Your task to perform on an android device: Play the last video I watched on Youtube Image 0: 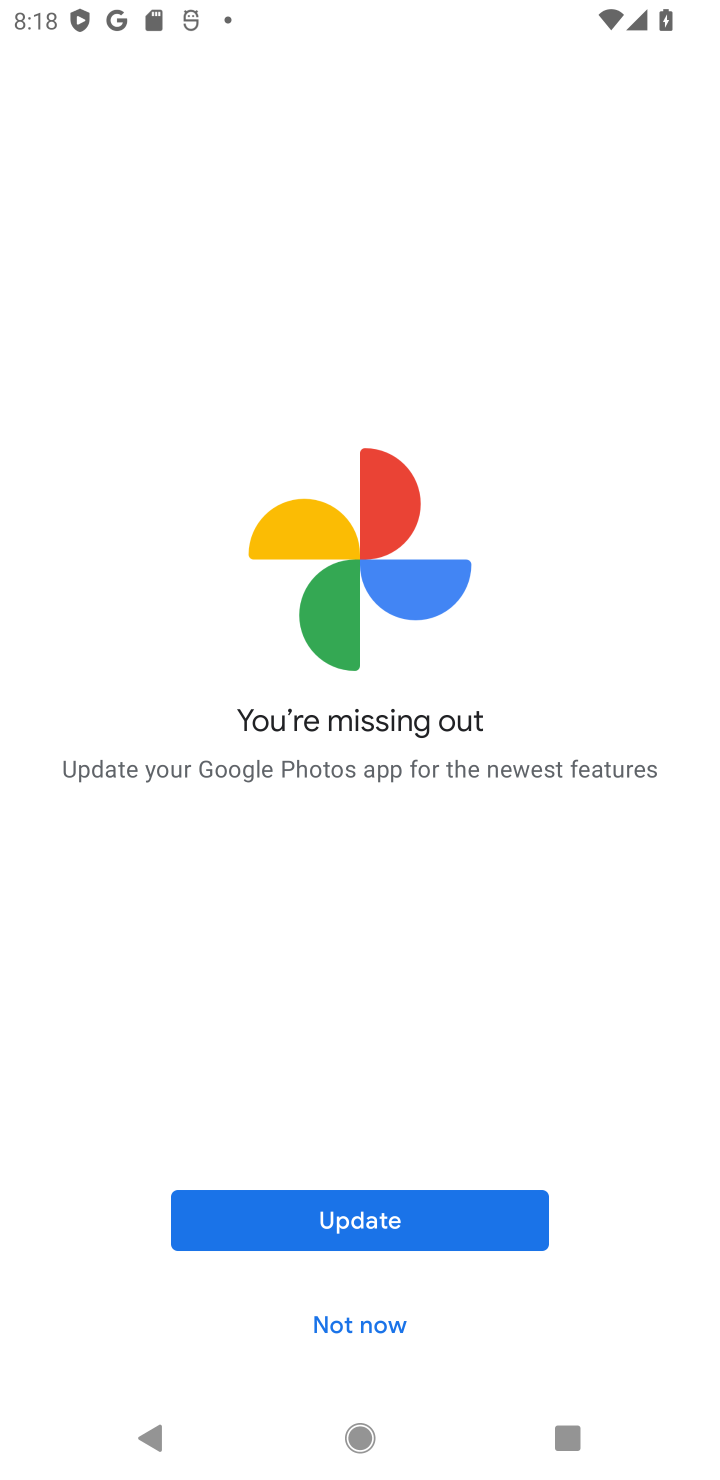
Step 0: press home button
Your task to perform on an android device: Play the last video I watched on Youtube Image 1: 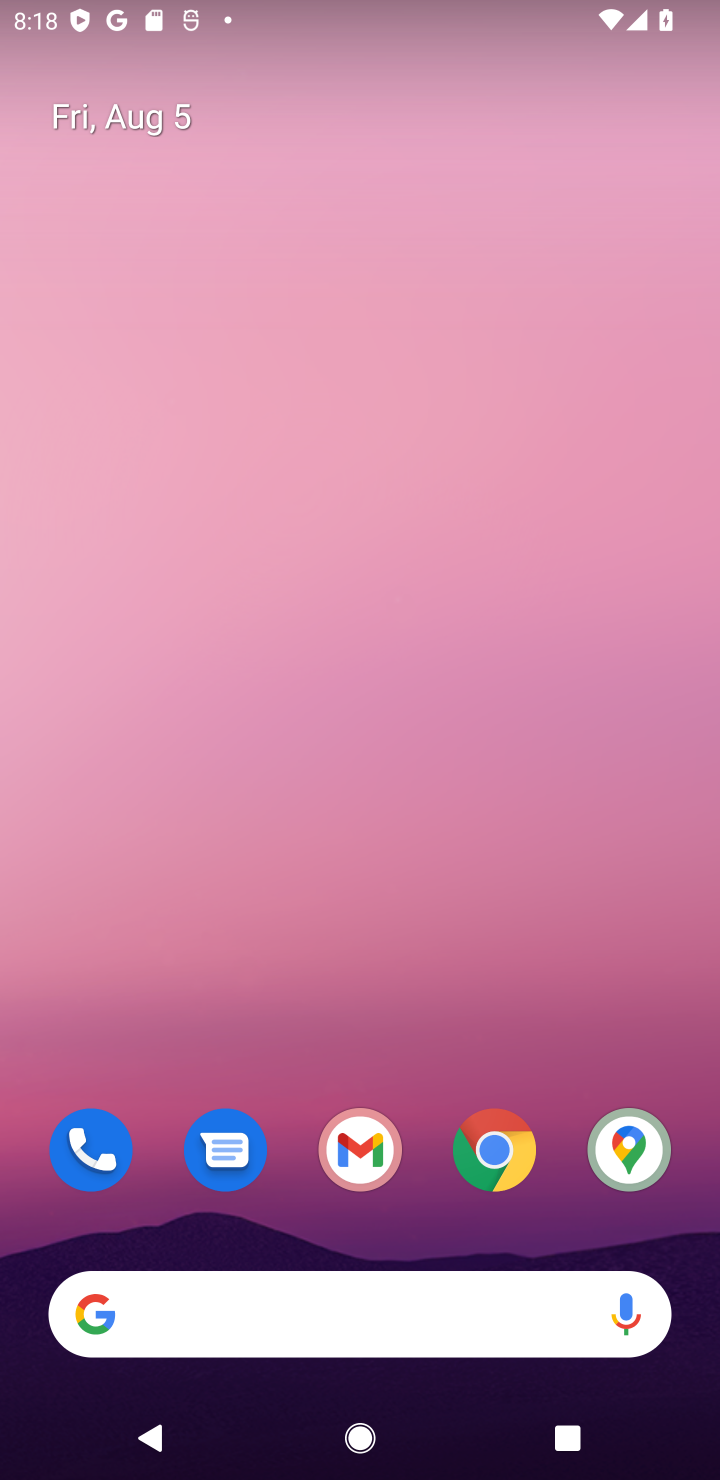
Step 1: drag from (422, 1063) to (462, 452)
Your task to perform on an android device: Play the last video I watched on Youtube Image 2: 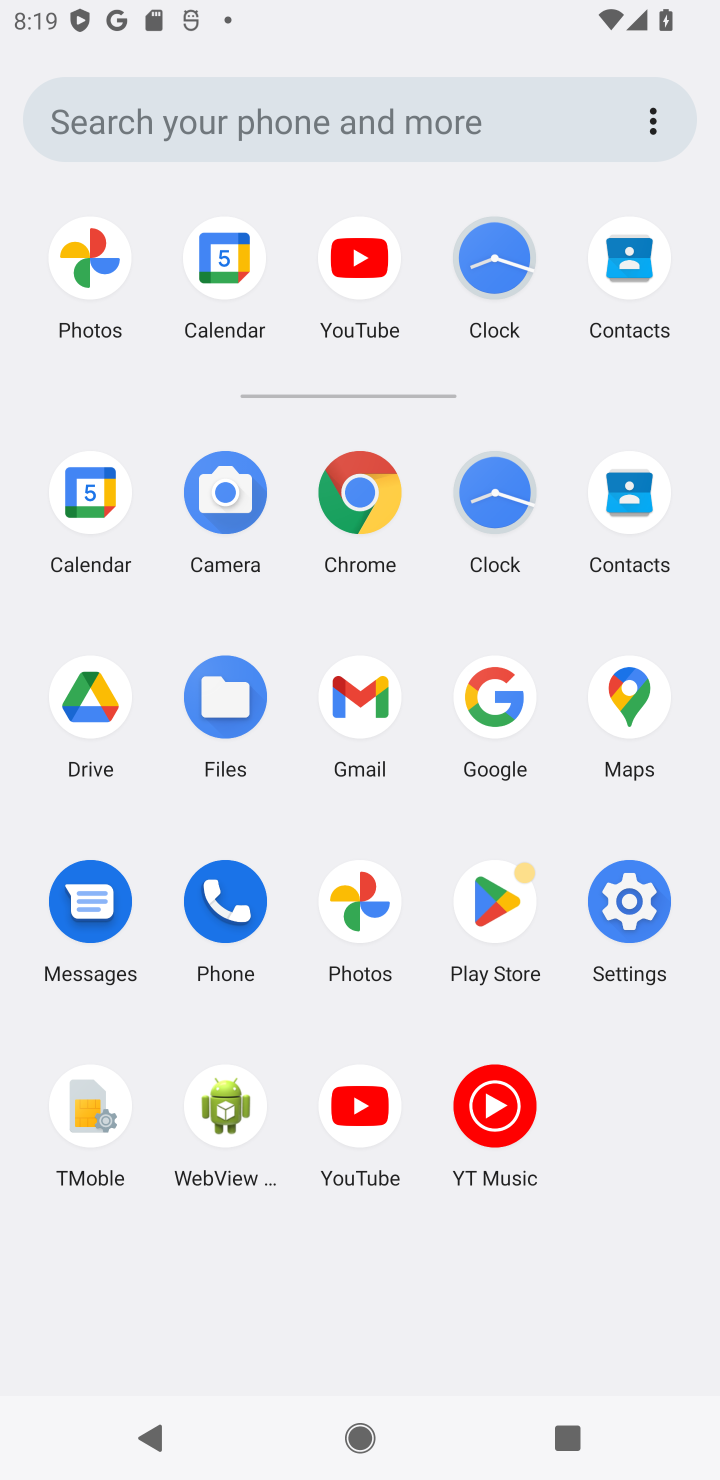
Step 2: click (364, 1115)
Your task to perform on an android device: Play the last video I watched on Youtube Image 3: 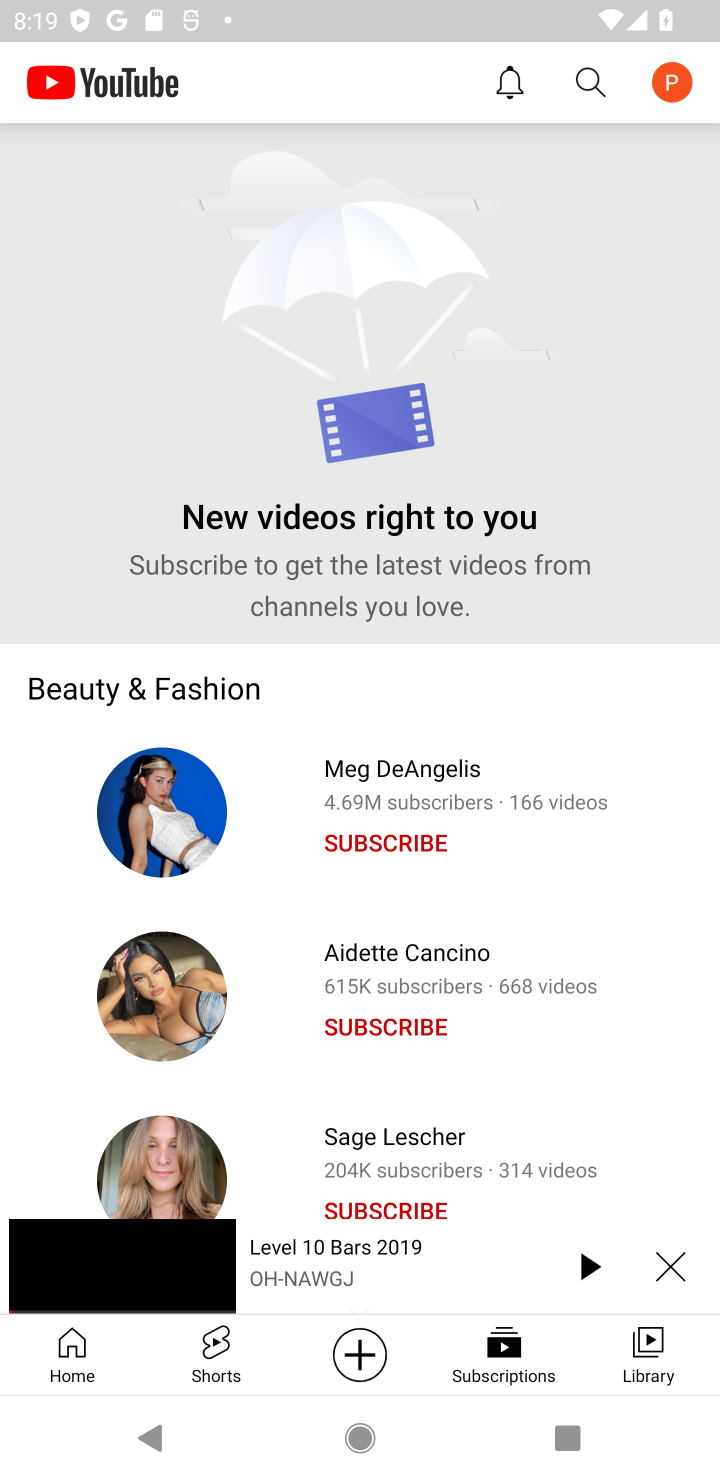
Step 3: click (156, 1254)
Your task to perform on an android device: Play the last video I watched on Youtube Image 4: 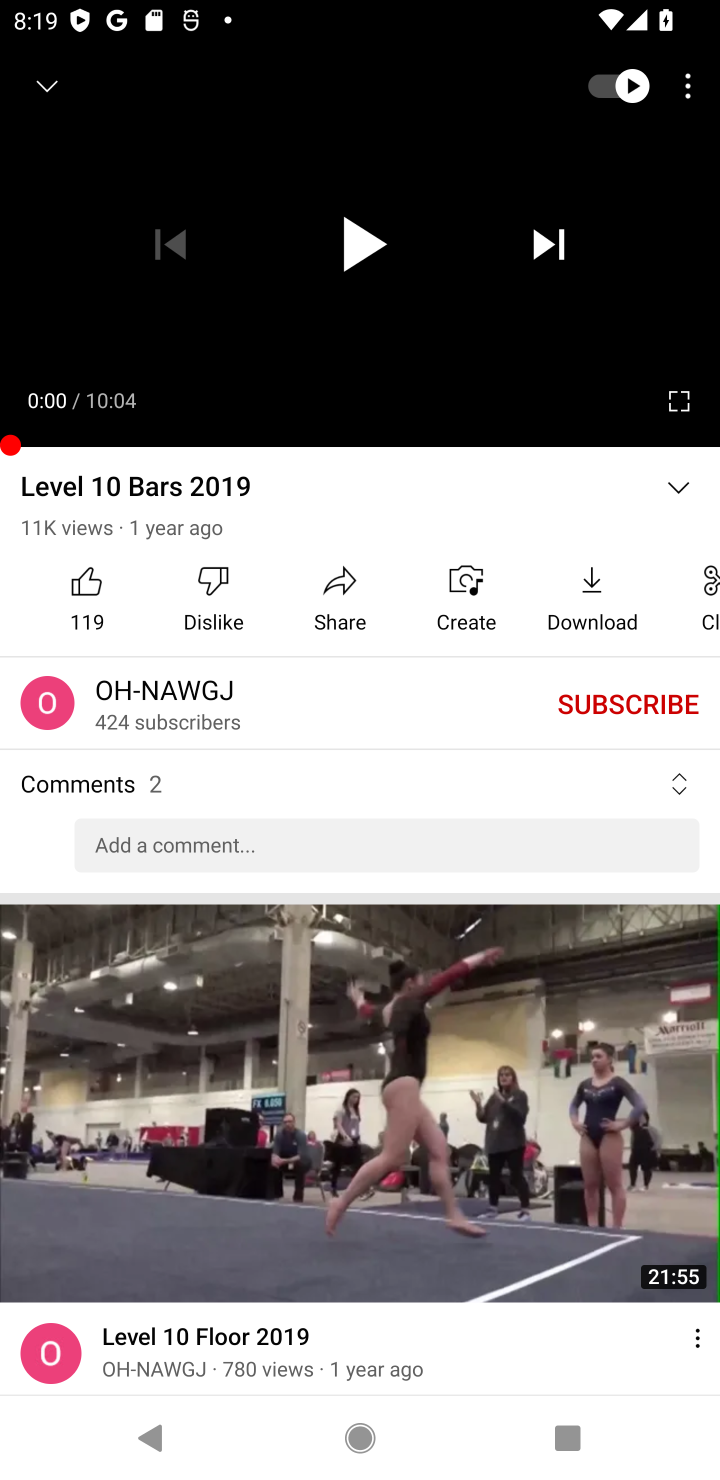
Step 4: click (366, 241)
Your task to perform on an android device: Play the last video I watched on Youtube Image 5: 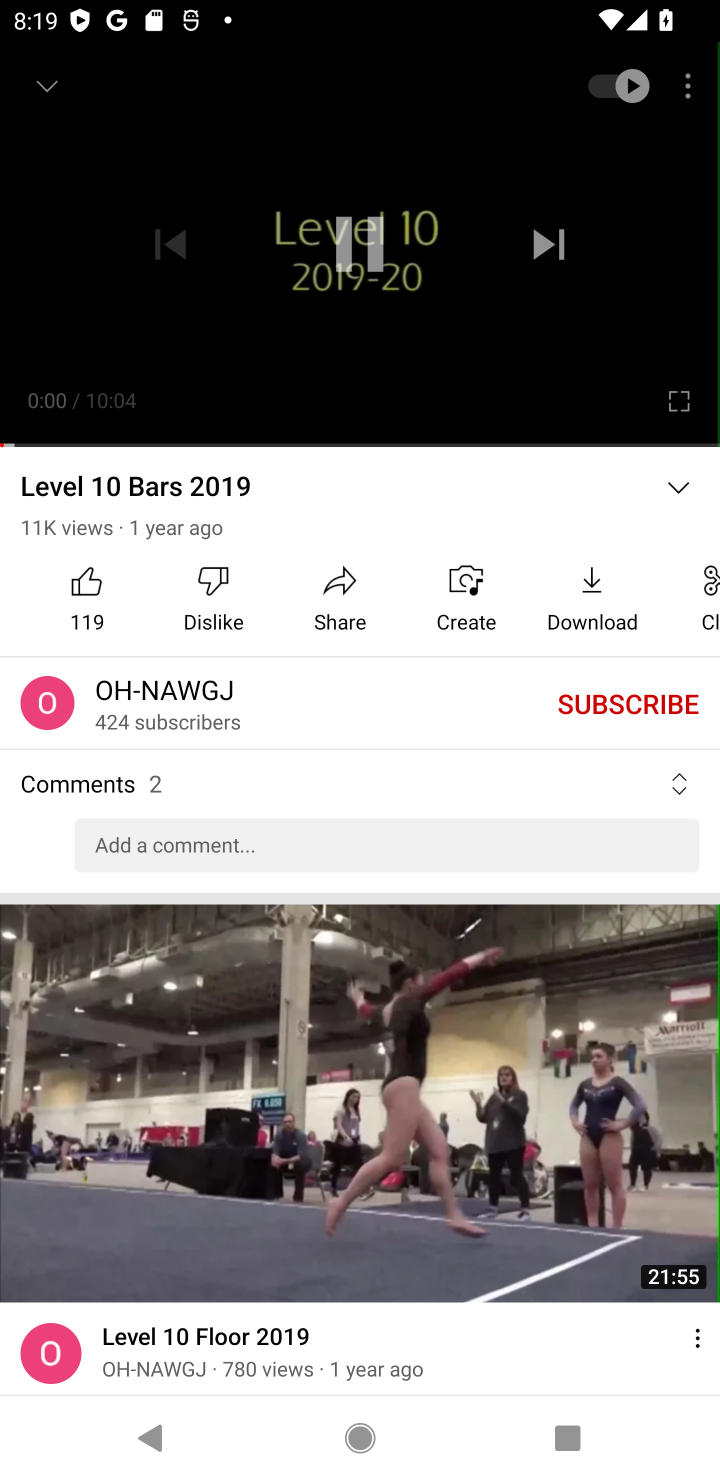
Step 5: task complete